Your task to perform on an android device: Go to location settings Image 0: 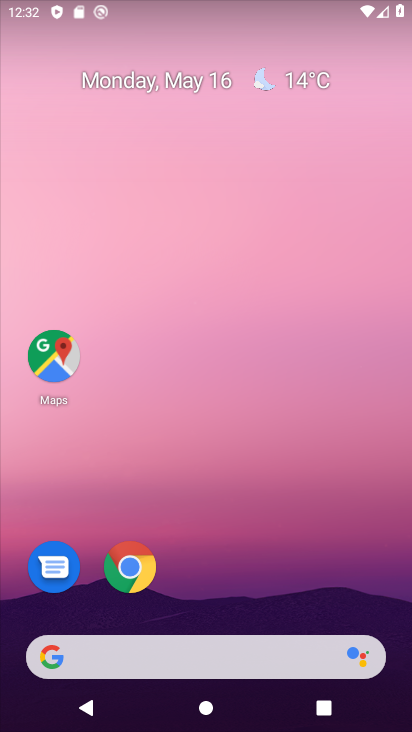
Step 0: drag from (215, 528) to (138, 33)
Your task to perform on an android device: Go to location settings Image 1: 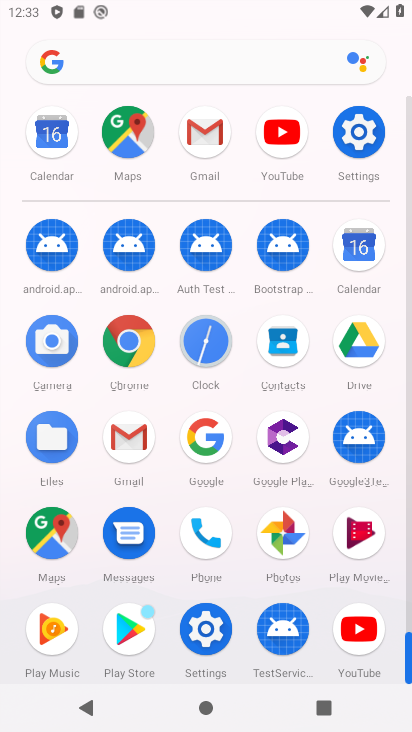
Step 1: click (348, 133)
Your task to perform on an android device: Go to location settings Image 2: 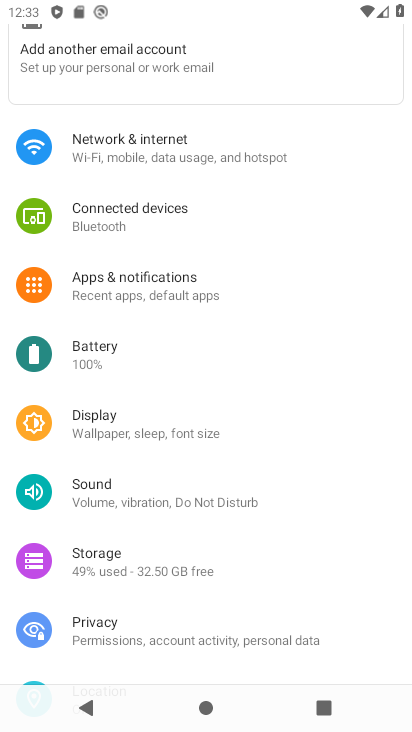
Step 2: drag from (153, 530) to (101, 270)
Your task to perform on an android device: Go to location settings Image 3: 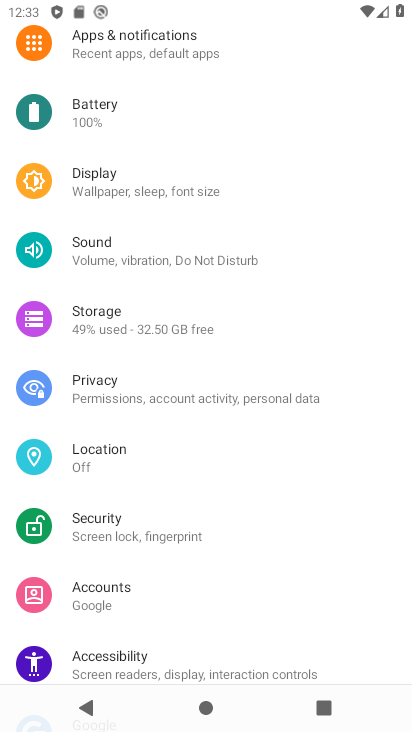
Step 3: click (86, 449)
Your task to perform on an android device: Go to location settings Image 4: 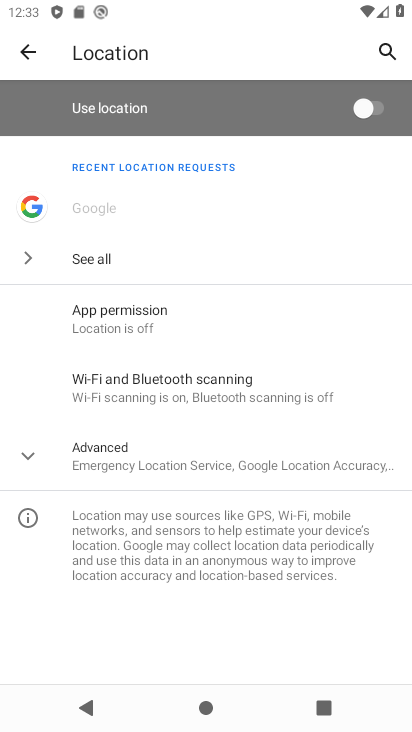
Step 4: task complete